Your task to perform on an android device: change notifications settings Image 0: 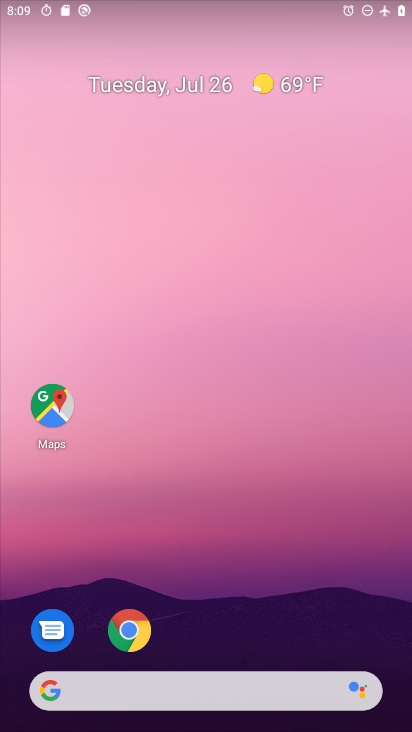
Step 0: drag from (250, 604) to (224, 139)
Your task to perform on an android device: change notifications settings Image 1: 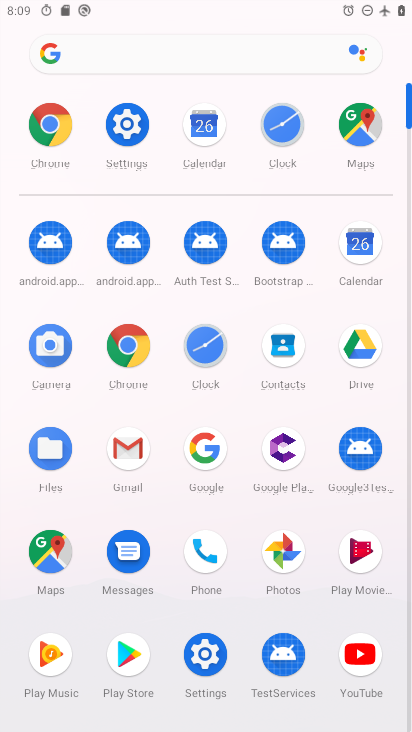
Step 1: click (217, 659)
Your task to perform on an android device: change notifications settings Image 2: 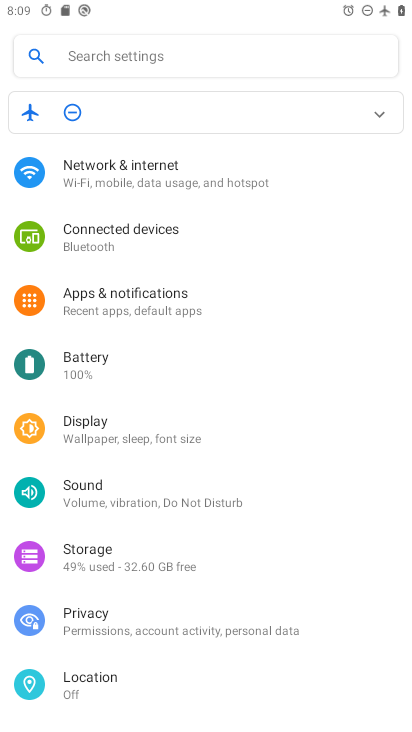
Step 2: click (213, 309)
Your task to perform on an android device: change notifications settings Image 3: 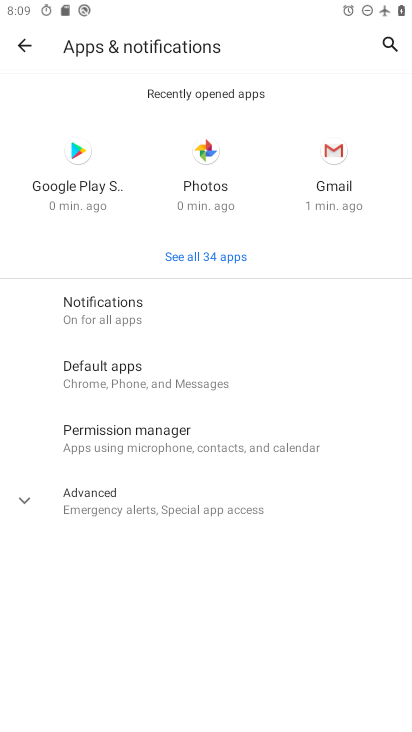
Step 3: click (183, 318)
Your task to perform on an android device: change notifications settings Image 4: 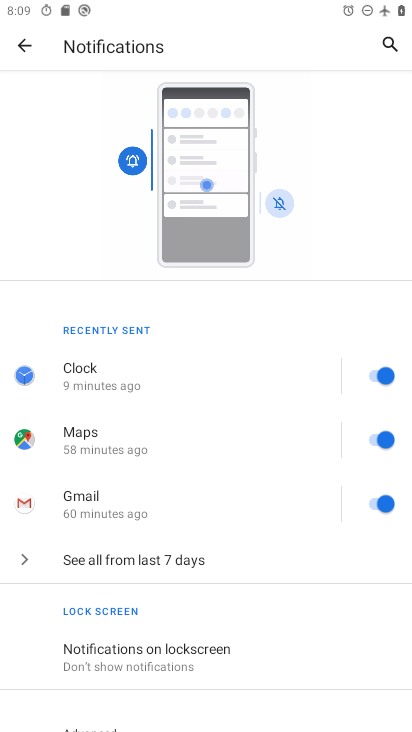
Step 4: click (396, 376)
Your task to perform on an android device: change notifications settings Image 5: 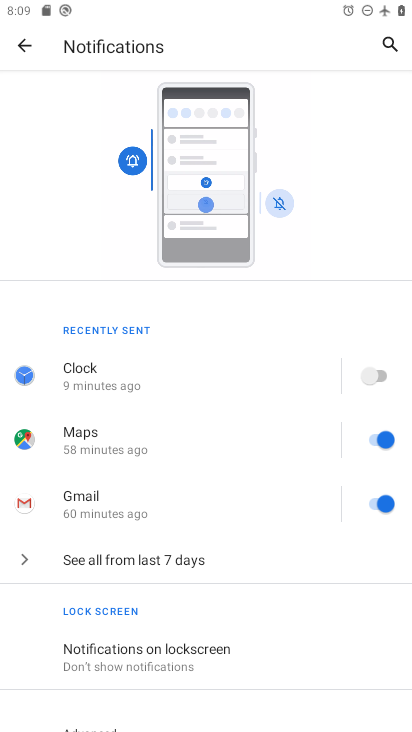
Step 5: task complete